Your task to perform on an android device: toggle location history Image 0: 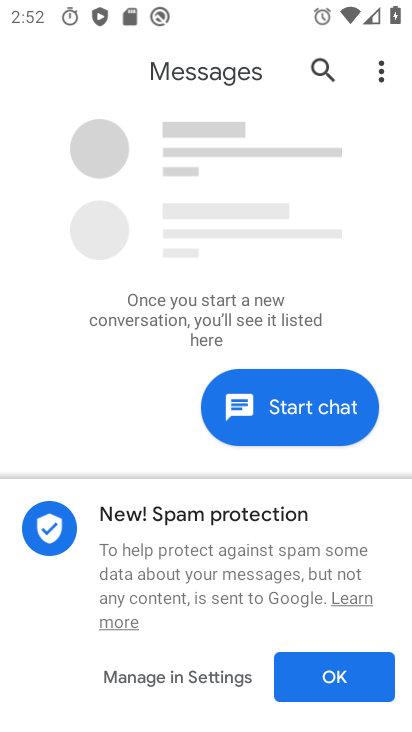
Step 0: press home button
Your task to perform on an android device: toggle location history Image 1: 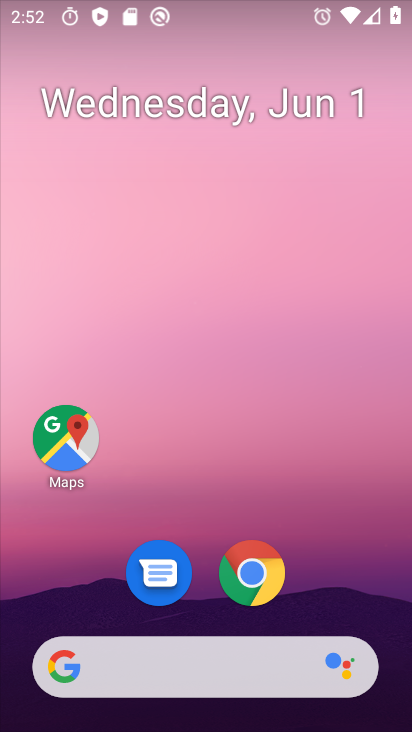
Step 1: drag from (210, 610) to (248, 184)
Your task to perform on an android device: toggle location history Image 2: 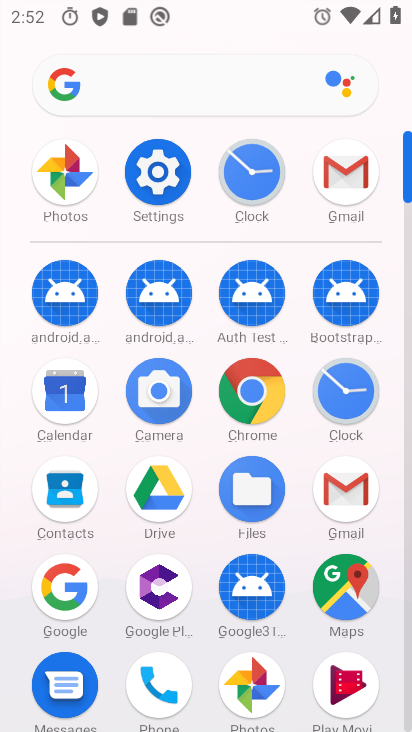
Step 2: click (152, 195)
Your task to perform on an android device: toggle location history Image 3: 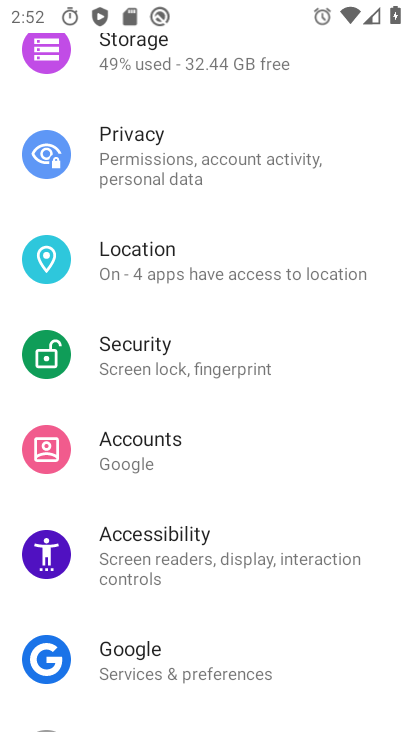
Step 3: click (177, 291)
Your task to perform on an android device: toggle location history Image 4: 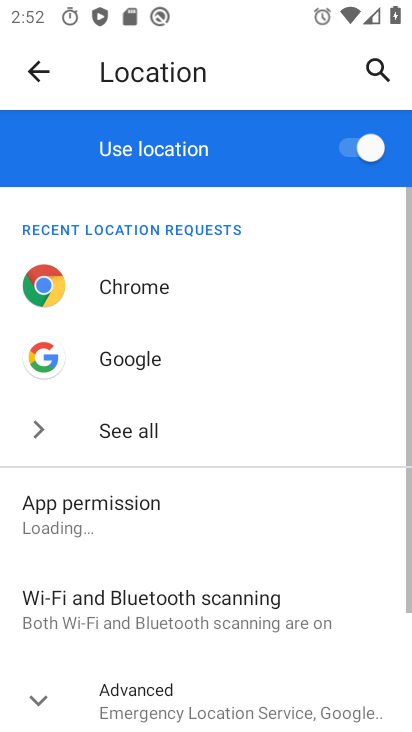
Step 4: drag from (202, 594) to (227, 291)
Your task to perform on an android device: toggle location history Image 5: 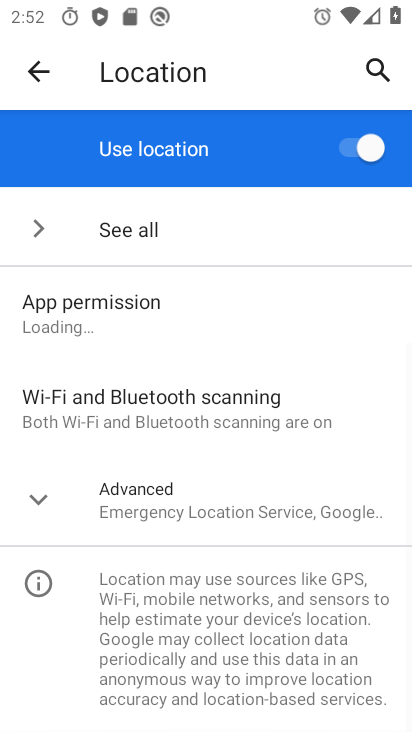
Step 5: click (177, 516)
Your task to perform on an android device: toggle location history Image 6: 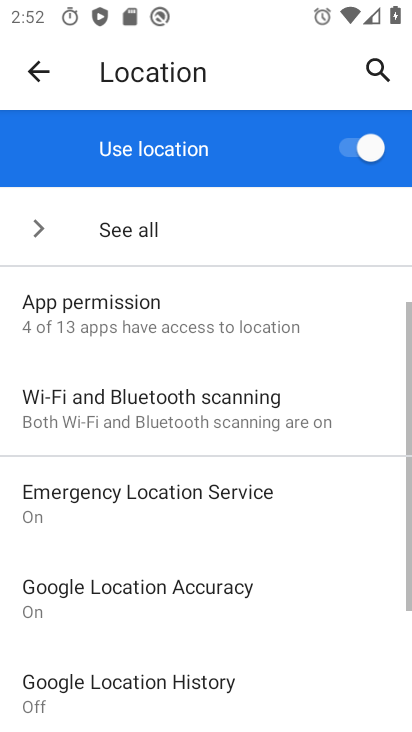
Step 6: drag from (203, 663) to (230, 458)
Your task to perform on an android device: toggle location history Image 7: 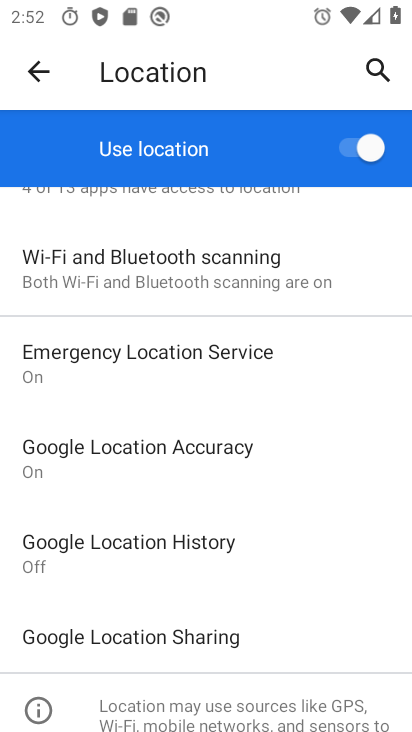
Step 7: click (206, 545)
Your task to perform on an android device: toggle location history Image 8: 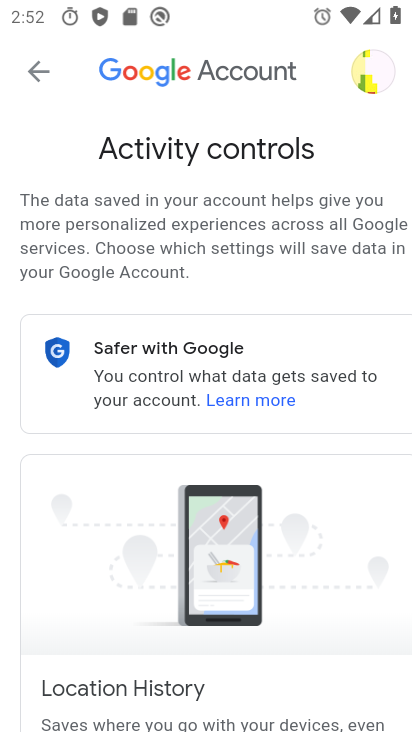
Step 8: drag from (246, 659) to (213, 309)
Your task to perform on an android device: toggle location history Image 9: 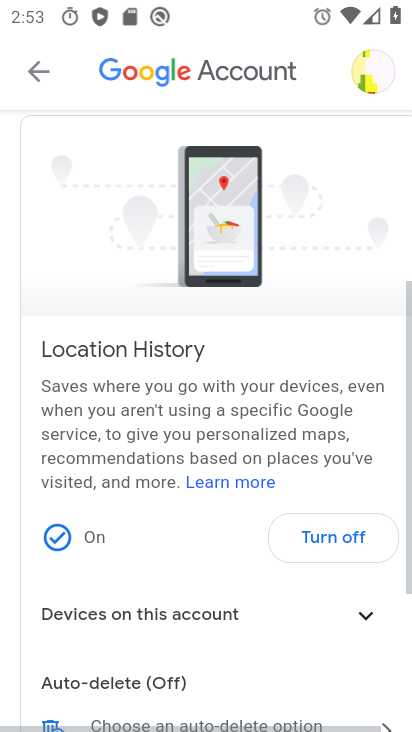
Step 9: drag from (274, 604) to (263, 411)
Your task to perform on an android device: toggle location history Image 10: 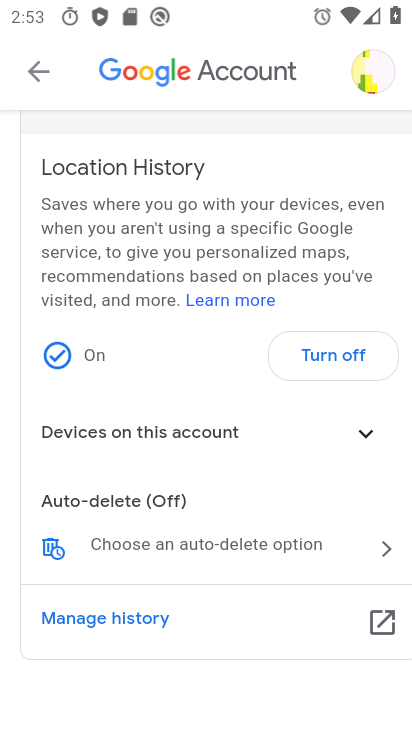
Step 10: click (319, 345)
Your task to perform on an android device: toggle location history Image 11: 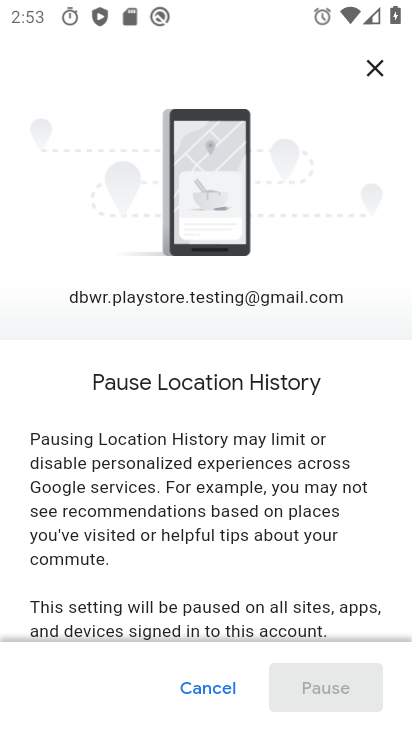
Step 11: drag from (325, 613) to (310, 180)
Your task to perform on an android device: toggle location history Image 12: 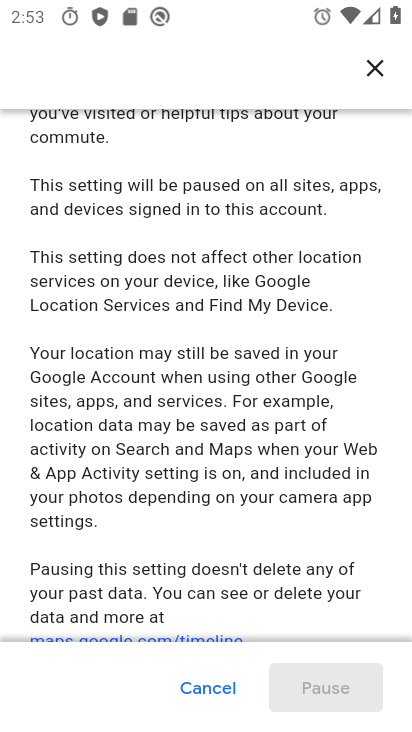
Step 12: drag from (358, 612) to (323, 248)
Your task to perform on an android device: toggle location history Image 13: 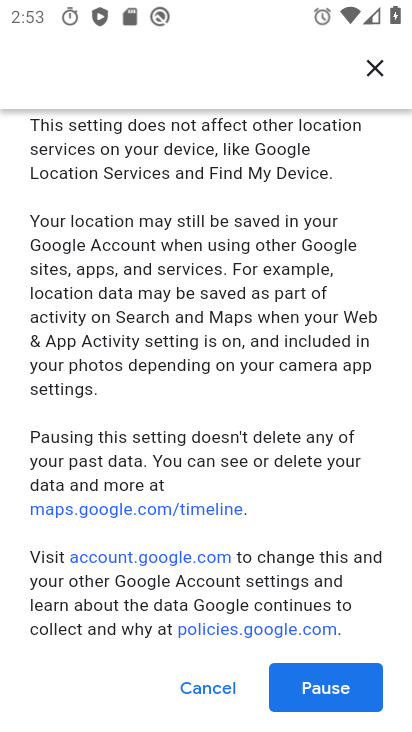
Step 13: click (342, 683)
Your task to perform on an android device: toggle location history Image 14: 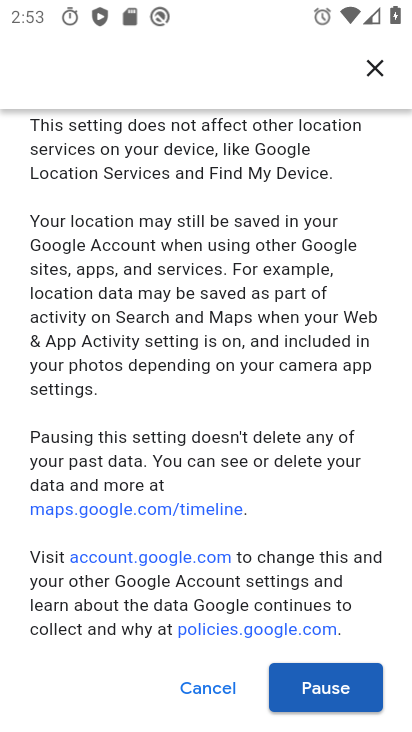
Step 14: click (341, 686)
Your task to perform on an android device: toggle location history Image 15: 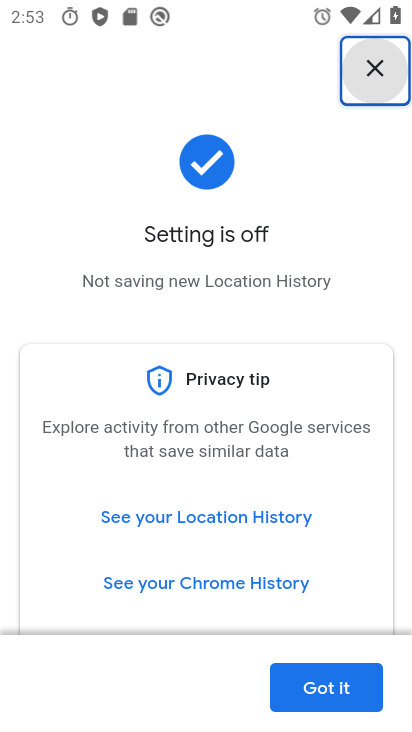
Step 15: task complete